Your task to perform on an android device: add a label to a message in the gmail app Image 0: 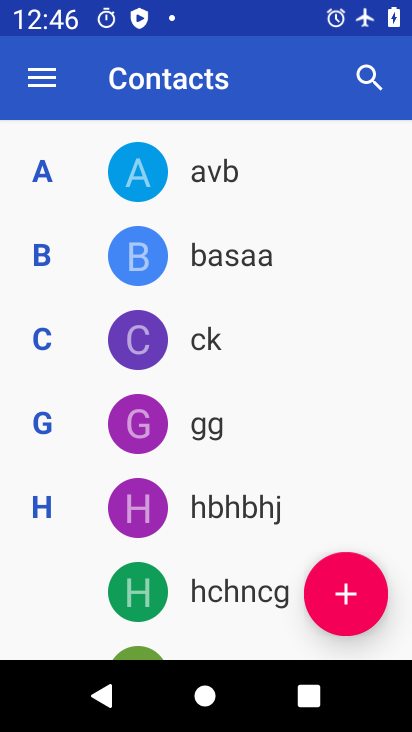
Step 0: press home button
Your task to perform on an android device: add a label to a message in the gmail app Image 1: 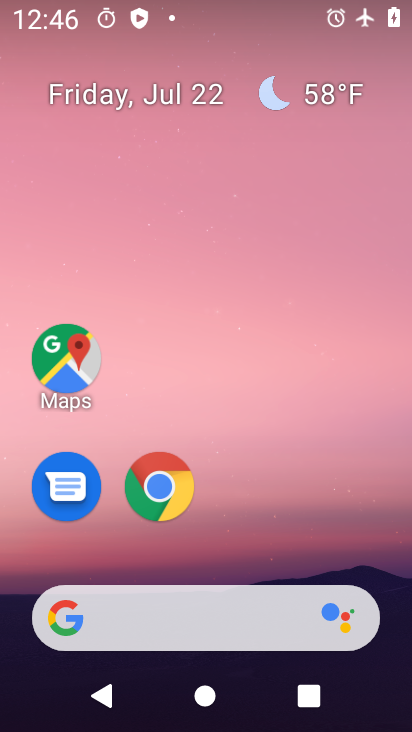
Step 1: drag from (346, 535) to (350, 140)
Your task to perform on an android device: add a label to a message in the gmail app Image 2: 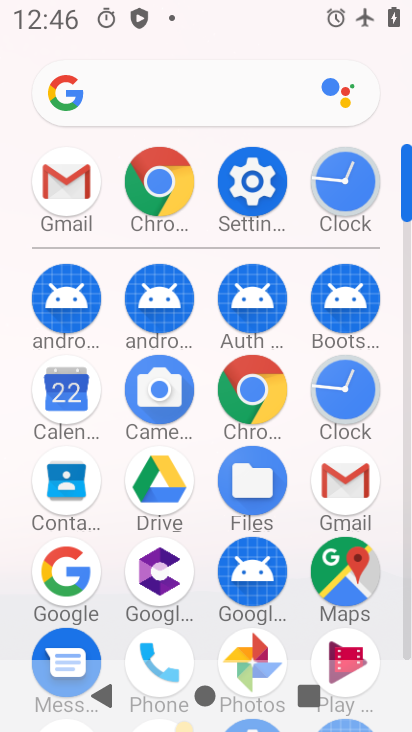
Step 2: click (347, 479)
Your task to perform on an android device: add a label to a message in the gmail app Image 3: 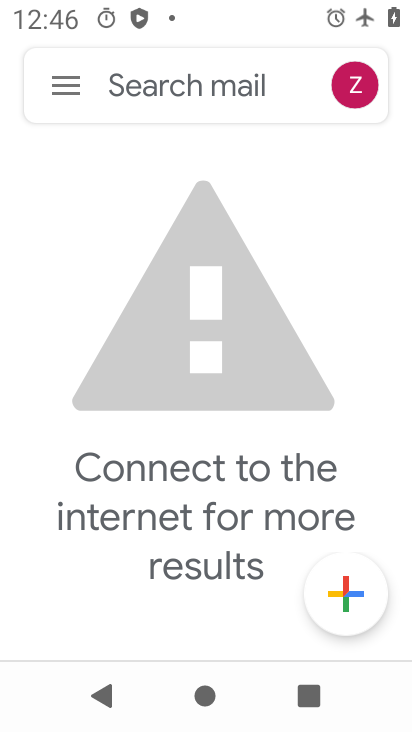
Step 3: click (71, 87)
Your task to perform on an android device: add a label to a message in the gmail app Image 4: 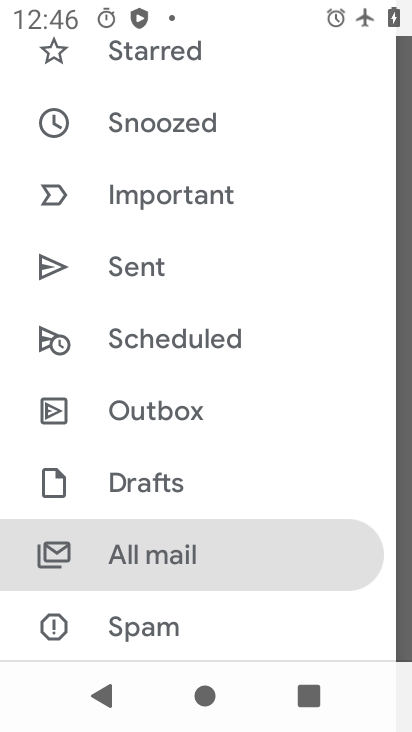
Step 4: drag from (255, 188) to (264, 304)
Your task to perform on an android device: add a label to a message in the gmail app Image 5: 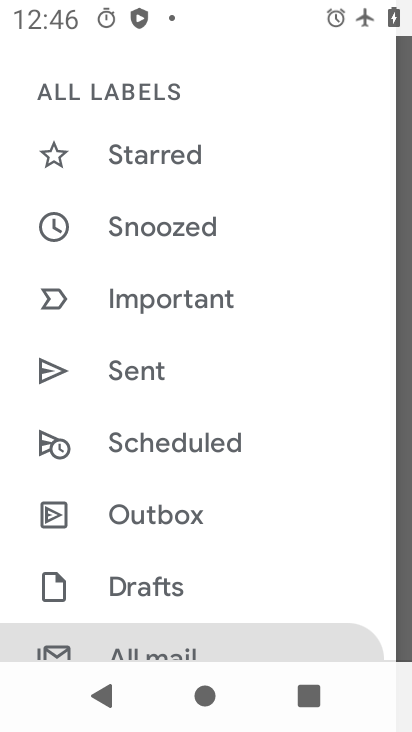
Step 5: drag from (297, 182) to (305, 332)
Your task to perform on an android device: add a label to a message in the gmail app Image 6: 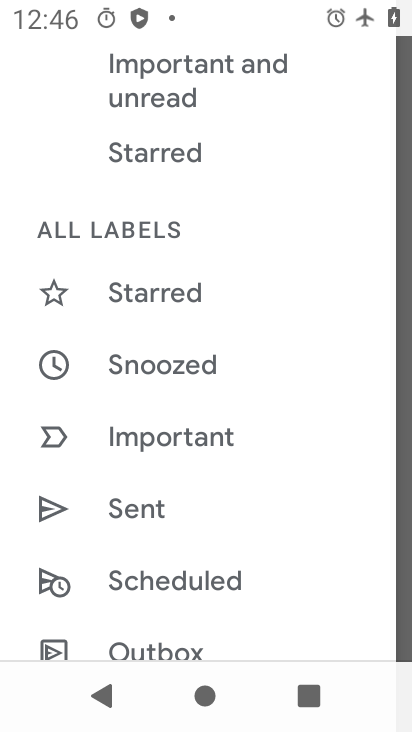
Step 6: drag from (310, 183) to (313, 296)
Your task to perform on an android device: add a label to a message in the gmail app Image 7: 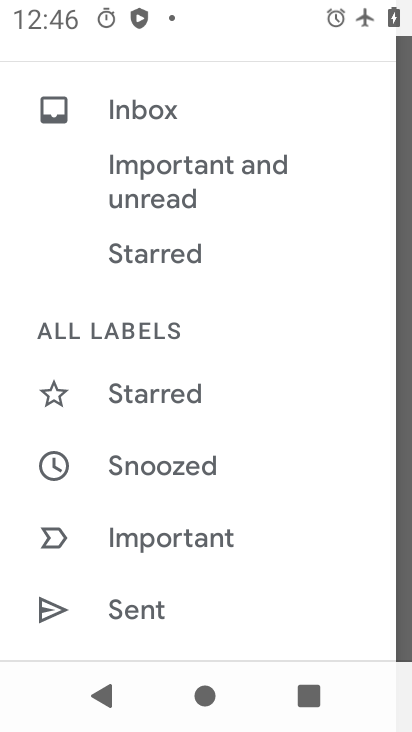
Step 7: click (199, 134)
Your task to perform on an android device: add a label to a message in the gmail app Image 8: 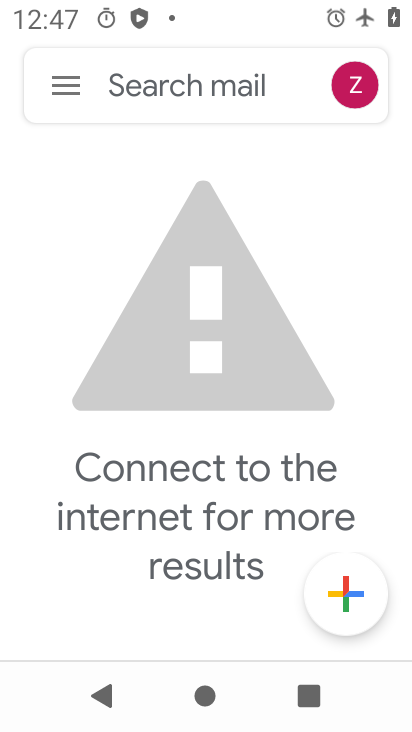
Step 8: task complete